Your task to perform on an android device: turn pop-ups off in chrome Image 0: 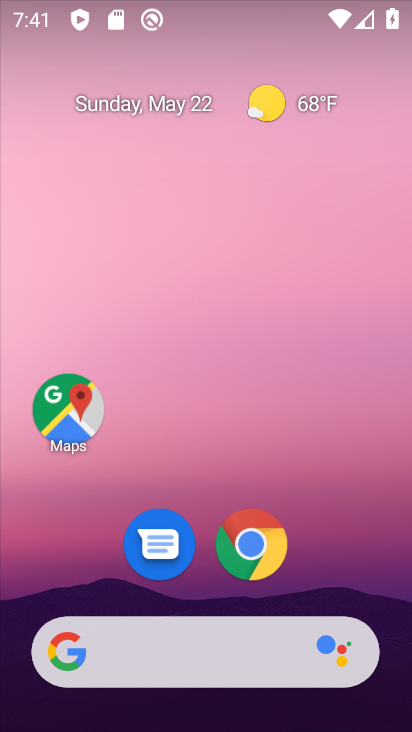
Step 0: click (410, 517)
Your task to perform on an android device: turn pop-ups off in chrome Image 1: 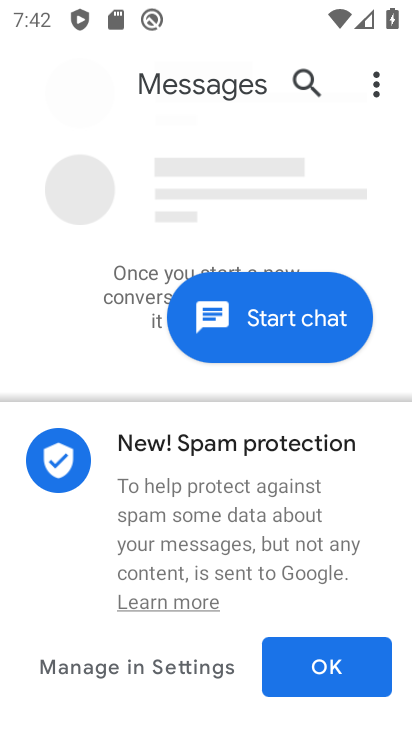
Step 1: press home button
Your task to perform on an android device: turn pop-ups off in chrome Image 2: 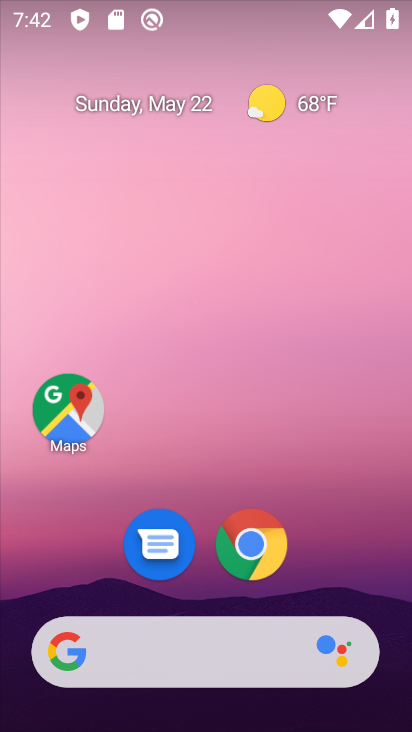
Step 2: click (253, 535)
Your task to perform on an android device: turn pop-ups off in chrome Image 3: 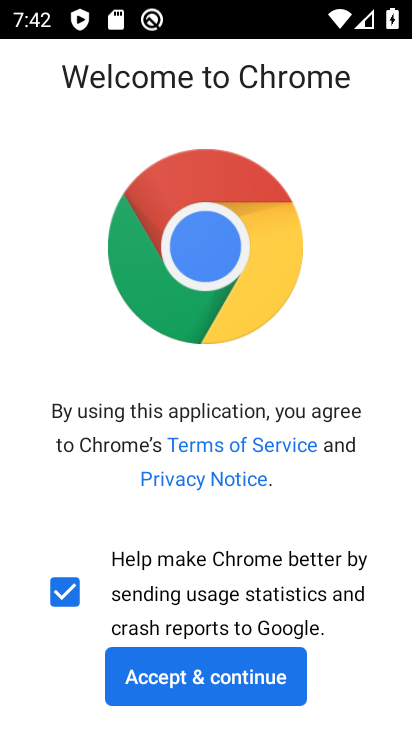
Step 3: click (246, 692)
Your task to perform on an android device: turn pop-ups off in chrome Image 4: 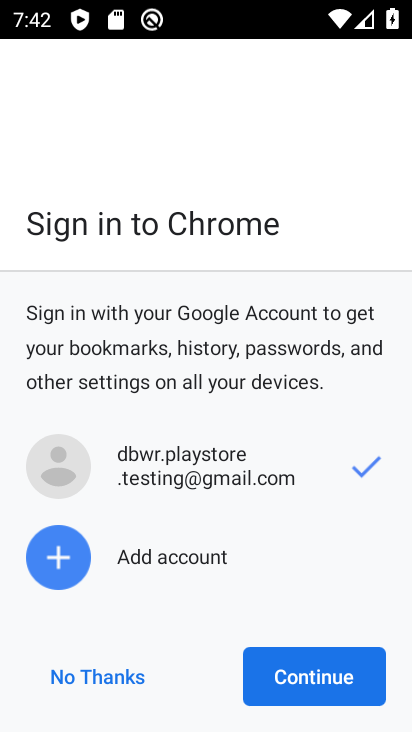
Step 4: click (277, 678)
Your task to perform on an android device: turn pop-ups off in chrome Image 5: 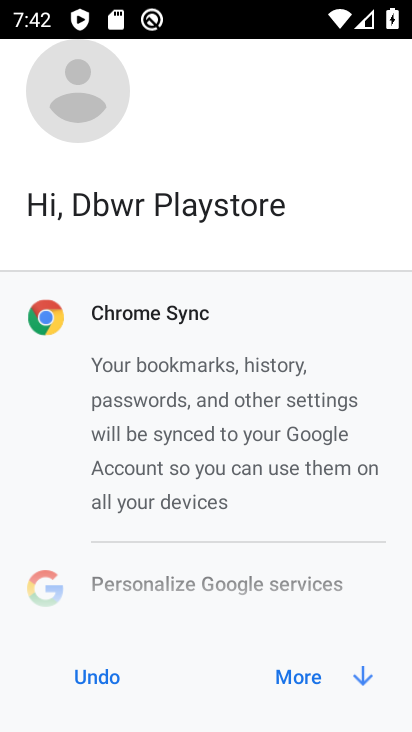
Step 5: click (277, 678)
Your task to perform on an android device: turn pop-ups off in chrome Image 6: 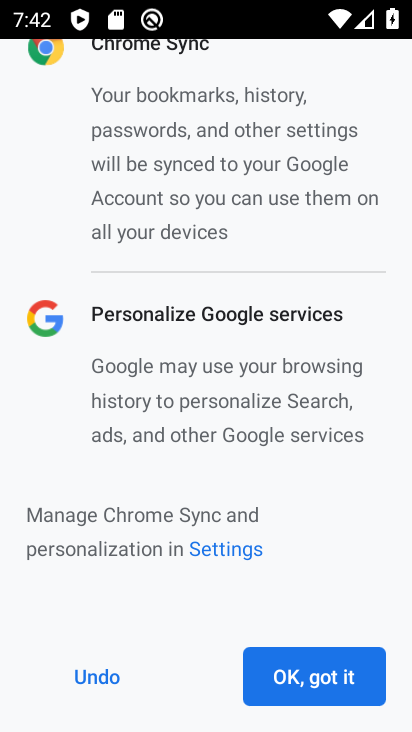
Step 6: click (277, 678)
Your task to perform on an android device: turn pop-ups off in chrome Image 7: 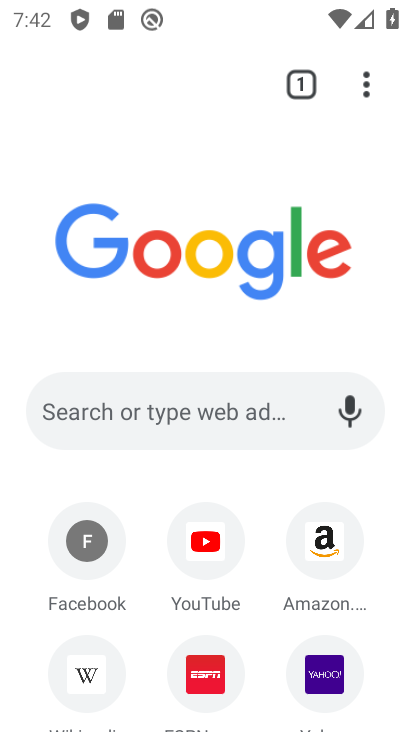
Step 7: click (363, 80)
Your task to perform on an android device: turn pop-ups off in chrome Image 8: 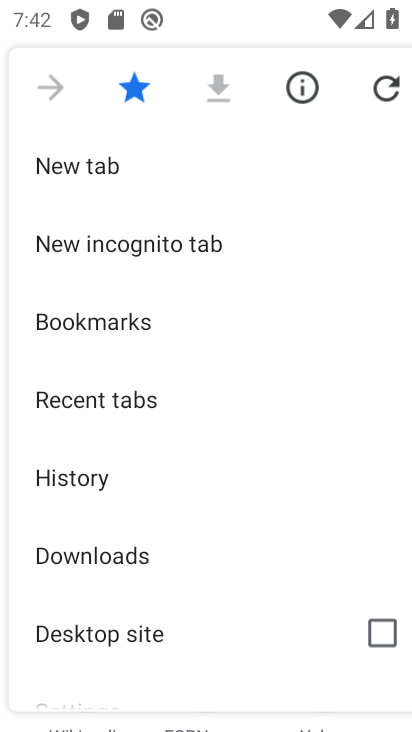
Step 8: drag from (323, 648) to (335, 435)
Your task to perform on an android device: turn pop-ups off in chrome Image 9: 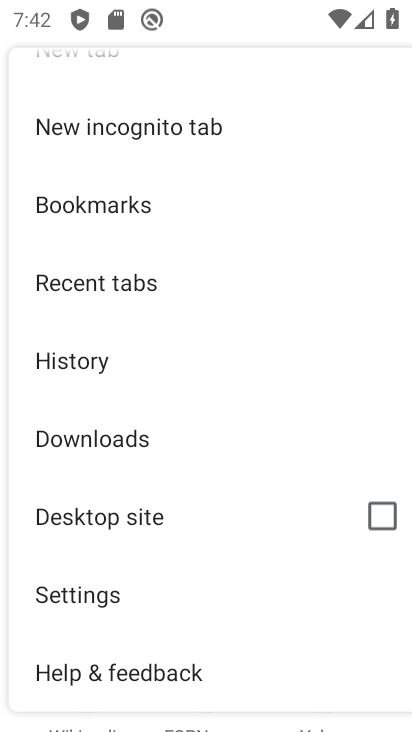
Step 9: click (79, 594)
Your task to perform on an android device: turn pop-ups off in chrome Image 10: 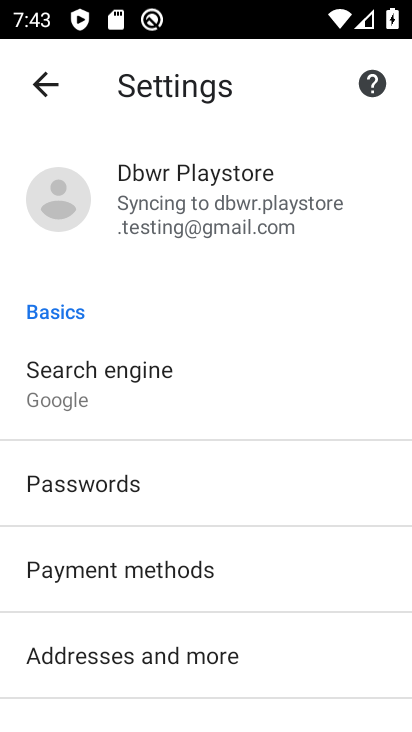
Step 10: drag from (384, 692) to (398, 381)
Your task to perform on an android device: turn pop-ups off in chrome Image 11: 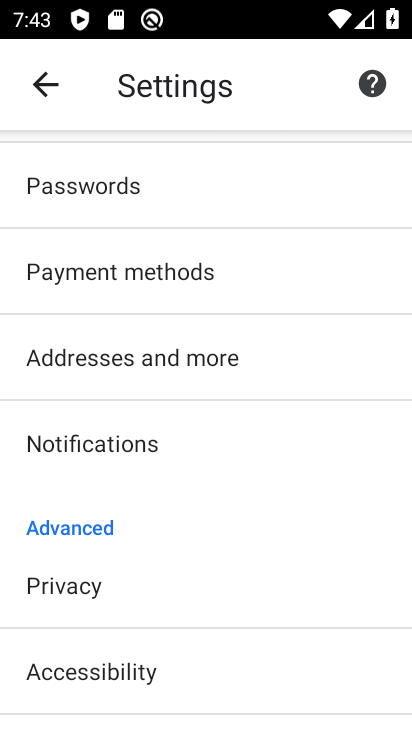
Step 11: drag from (360, 667) to (405, 299)
Your task to perform on an android device: turn pop-ups off in chrome Image 12: 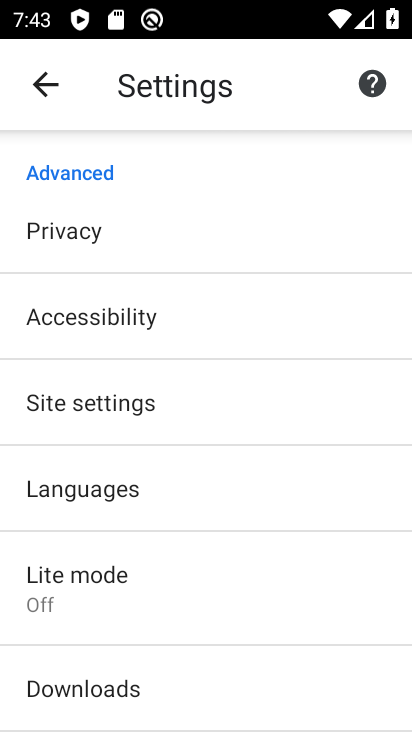
Step 12: click (109, 408)
Your task to perform on an android device: turn pop-ups off in chrome Image 13: 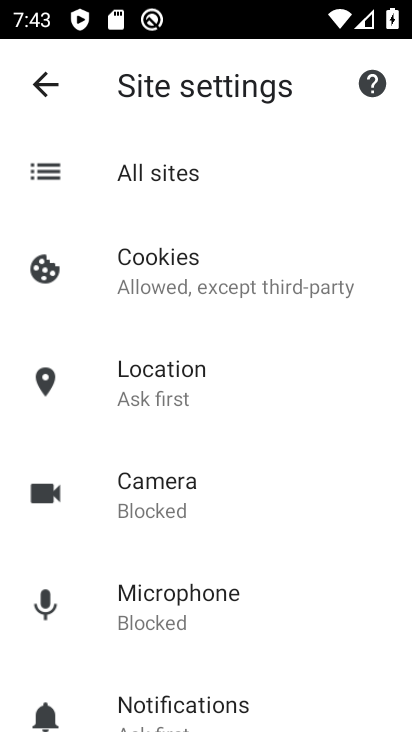
Step 13: drag from (376, 667) to (373, 413)
Your task to perform on an android device: turn pop-ups off in chrome Image 14: 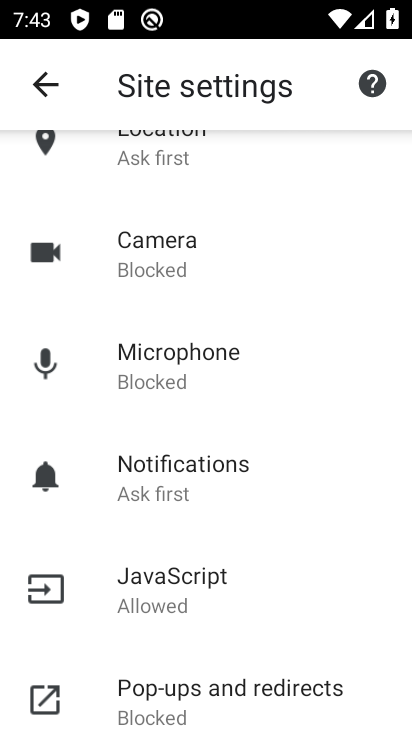
Step 14: click (206, 678)
Your task to perform on an android device: turn pop-ups off in chrome Image 15: 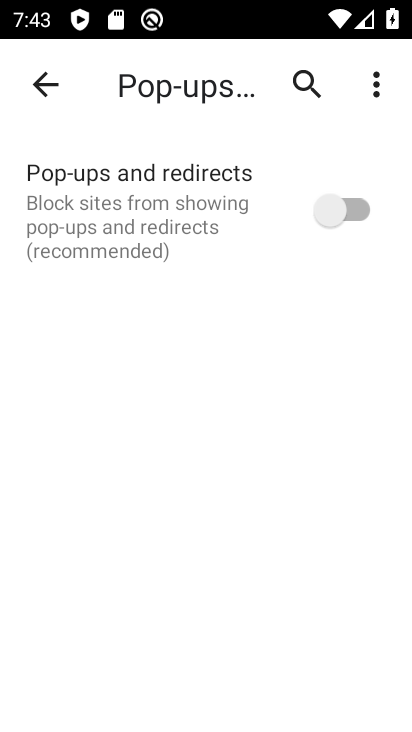
Step 15: task complete